Your task to perform on an android device: turn vacation reply on in the gmail app Image 0: 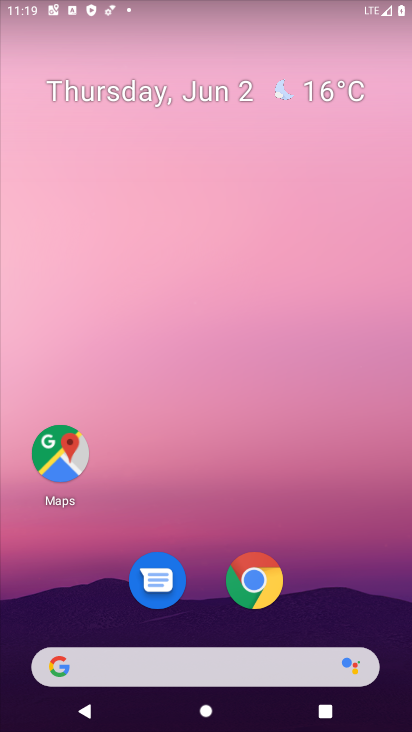
Step 0: drag from (208, 590) to (207, 301)
Your task to perform on an android device: turn vacation reply on in the gmail app Image 1: 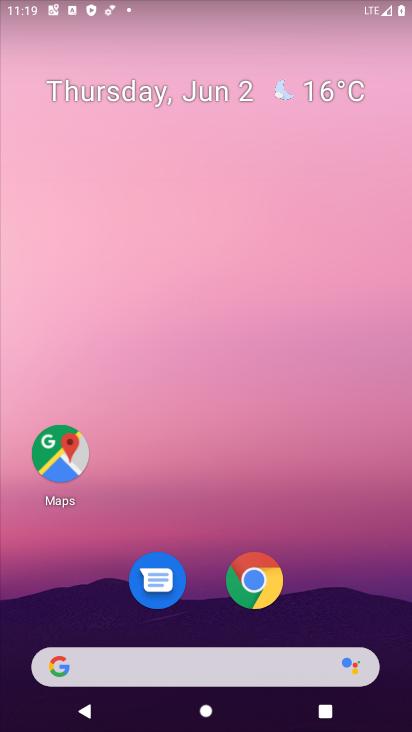
Step 1: drag from (221, 580) to (229, 363)
Your task to perform on an android device: turn vacation reply on in the gmail app Image 2: 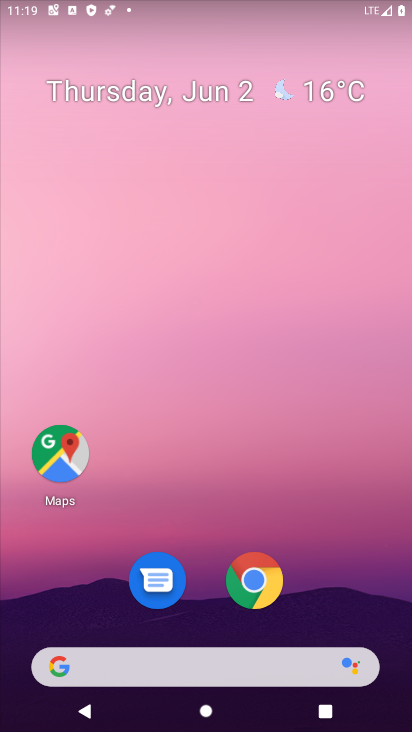
Step 2: drag from (245, 619) to (272, 346)
Your task to perform on an android device: turn vacation reply on in the gmail app Image 3: 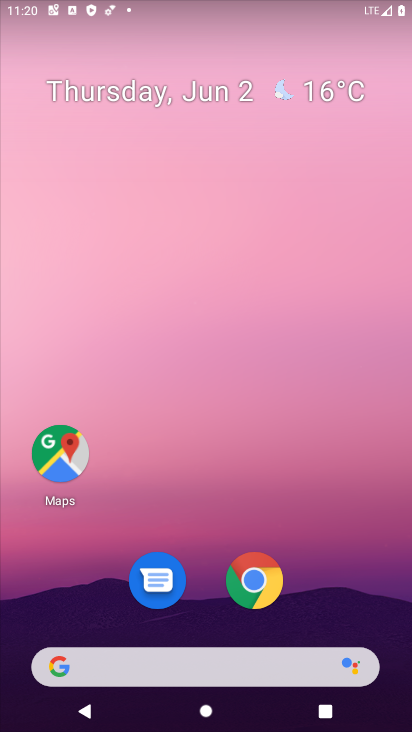
Step 3: drag from (209, 669) to (353, 27)
Your task to perform on an android device: turn vacation reply on in the gmail app Image 4: 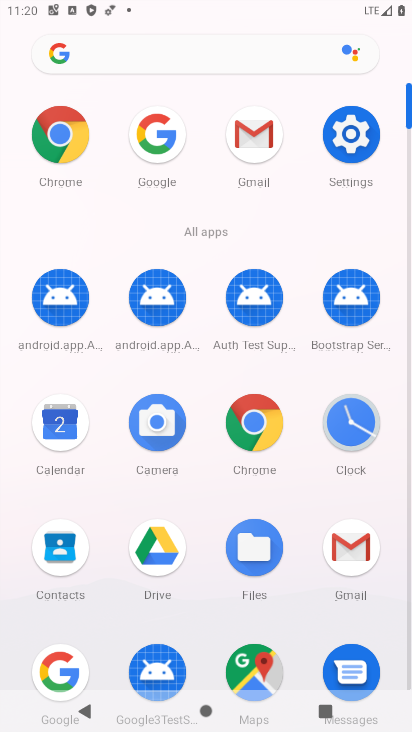
Step 4: click (352, 569)
Your task to perform on an android device: turn vacation reply on in the gmail app Image 5: 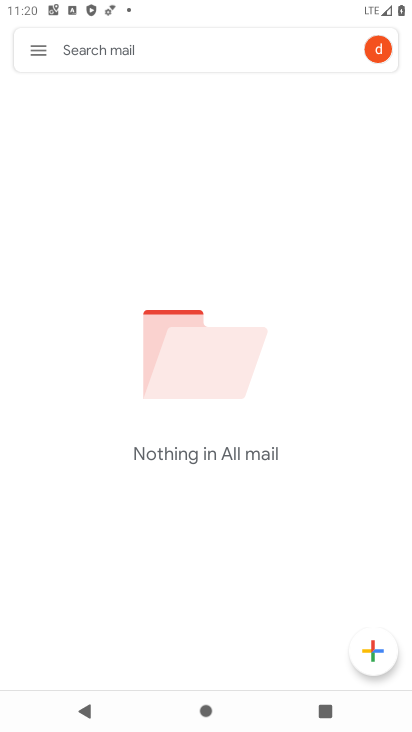
Step 5: click (43, 53)
Your task to perform on an android device: turn vacation reply on in the gmail app Image 6: 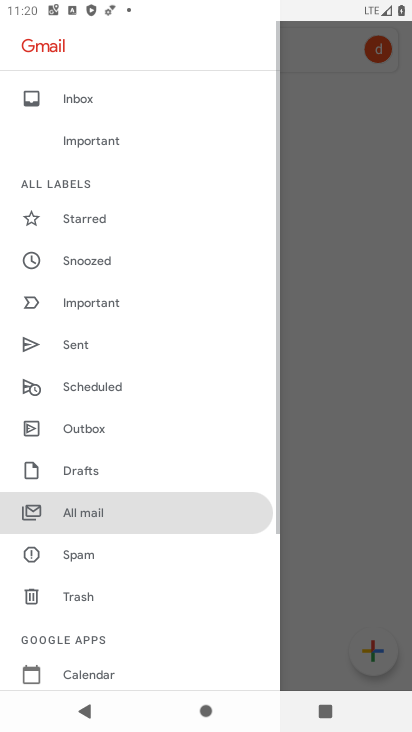
Step 6: drag from (122, 587) to (187, 120)
Your task to perform on an android device: turn vacation reply on in the gmail app Image 7: 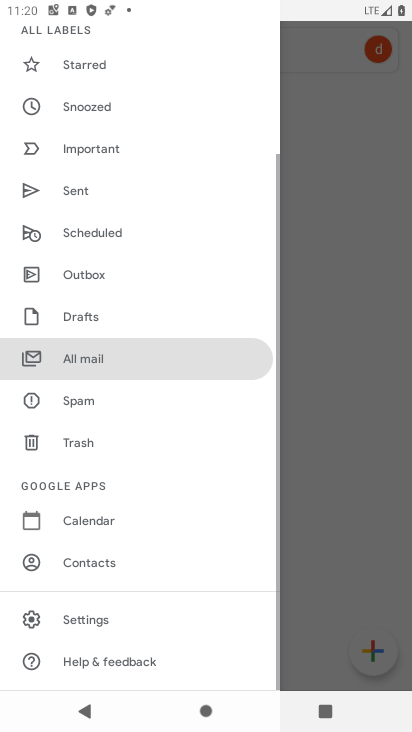
Step 7: click (99, 620)
Your task to perform on an android device: turn vacation reply on in the gmail app Image 8: 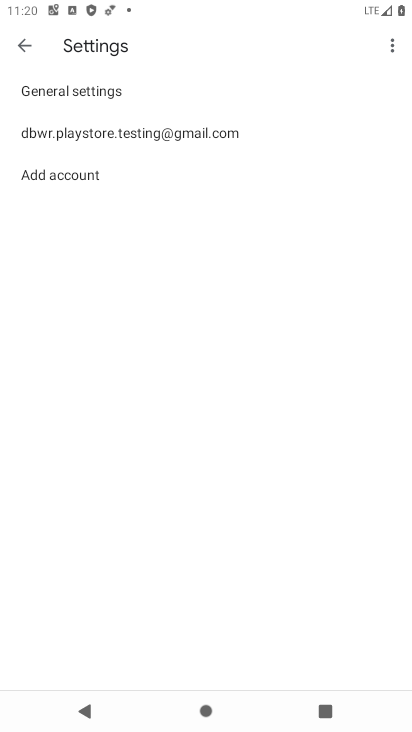
Step 8: click (98, 131)
Your task to perform on an android device: turn vacation reply on in the gmail app Image 9: 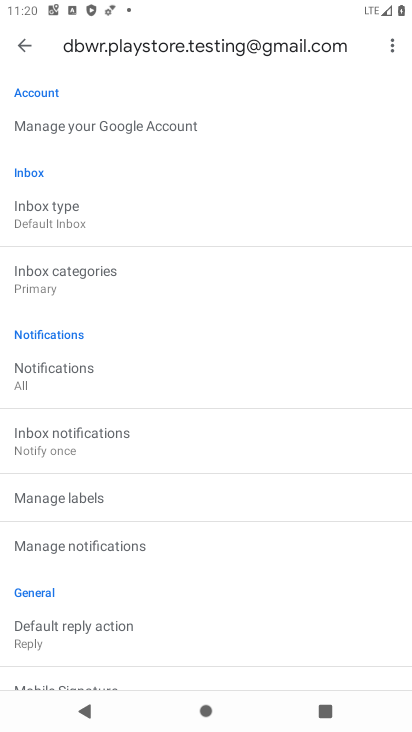
Step 9: drag from (150, 501) to (195, 184)
Your task to perform on an android device: turn vacation reply on in the gmail app Image 10: 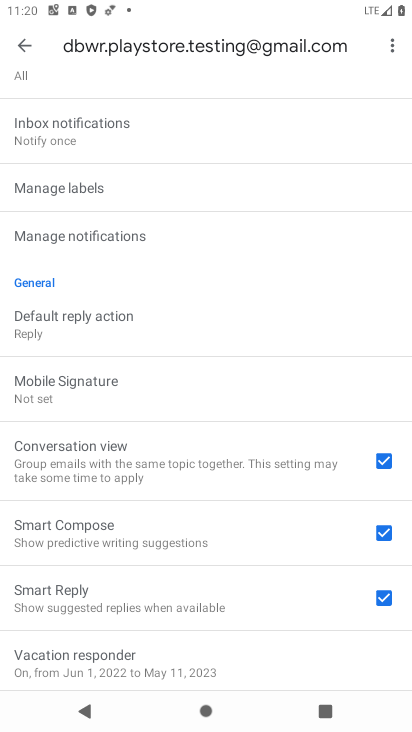
Step 10: drag from (167, 587) to (222, 295)
Your task to perform on an android device: turn vacation reply on in the gmail app Image 11: 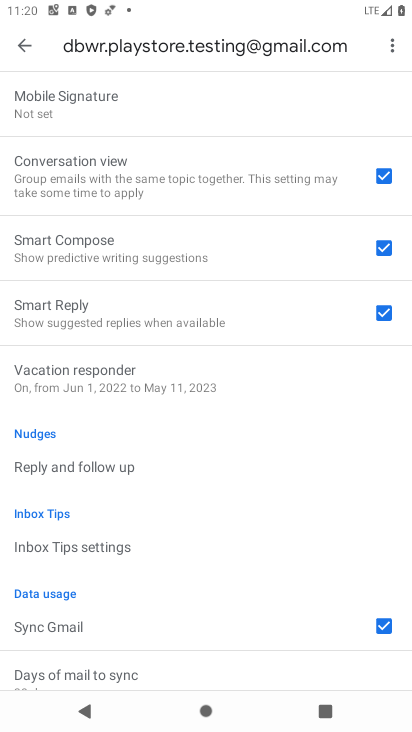
Step 11: click (204, 376)
Your task to perform on an android device: turn vacation reply on in the gmail app Image 12: 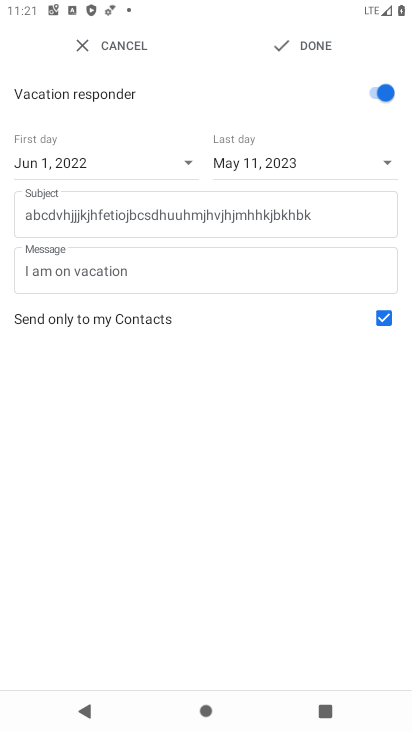
Step 12: task complete